Your task to perform on an android device: turn off smart reply in the gmail app Image 0: 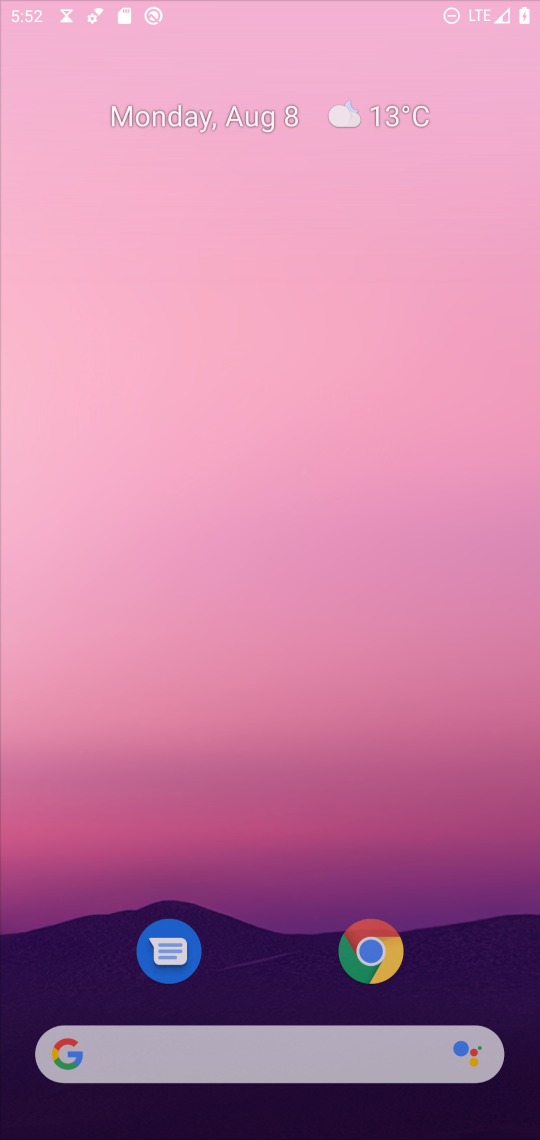
Step 0: press home button
Your task to perform on an android device: turn off smart reply in the gmail app Image 1: 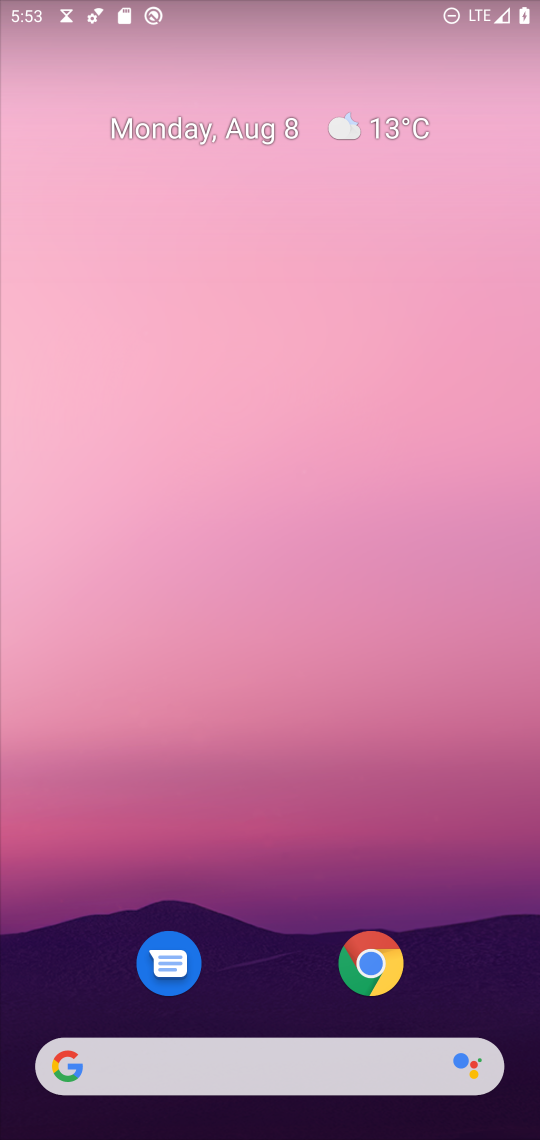
Step 1: drag from (252, 910) to (205, 213)
Your task to perform on an android device: turn off smart reply in the gmail app Image 2: 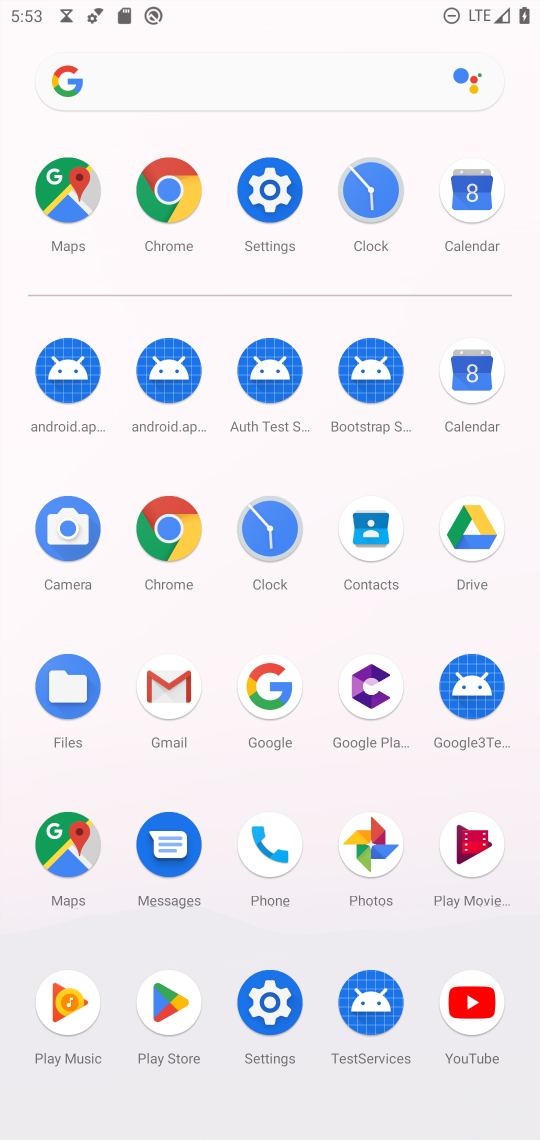
Step 2: click (174, 693)
Your task to perform on an android device: turn off smart reply in the gmail app Image 3: 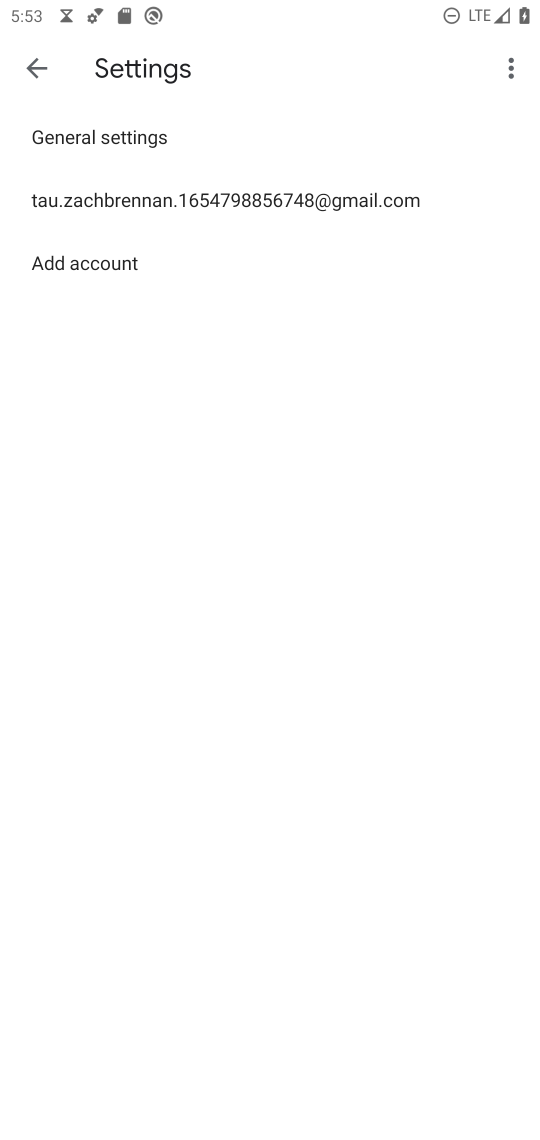
Step 3: click (126, 192)
Your task to perform on an android device: turn off smart reply in the gmail app Image 4: 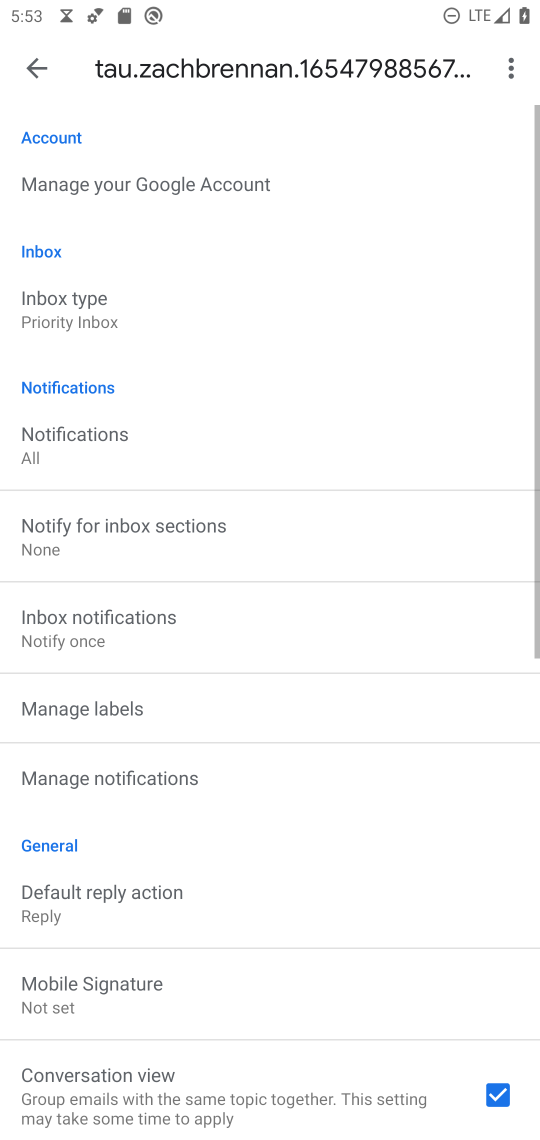
Step 4: drag from (313, 752) to (298, 260)
Your task to perform on an android device: turn off smart reply in the gmail app Image 5: 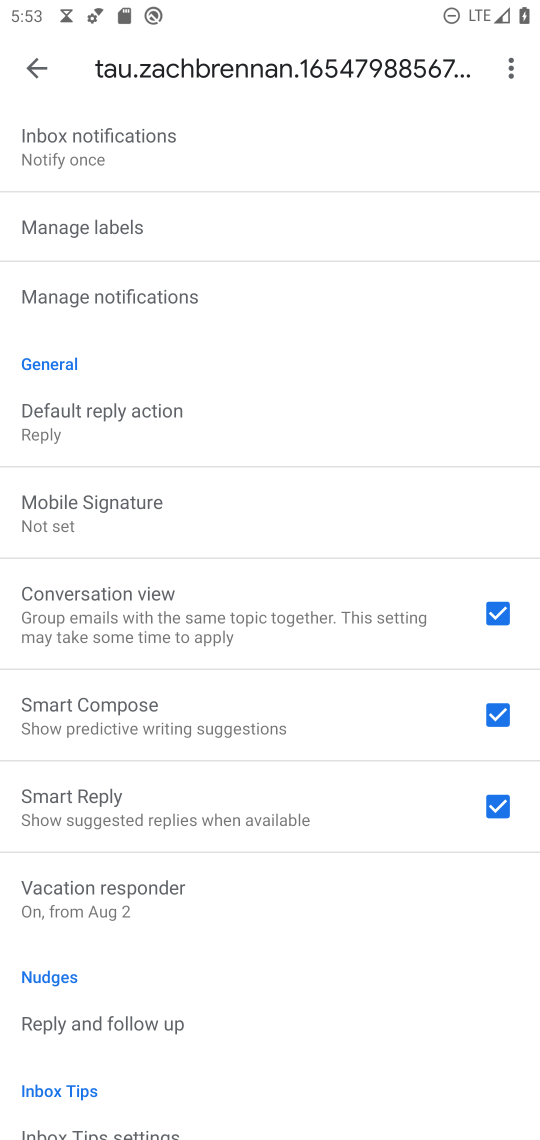
Step 5: click (484, 795)
Your task to perform on an android device: turn off smart reply in the gmail app Image 6: 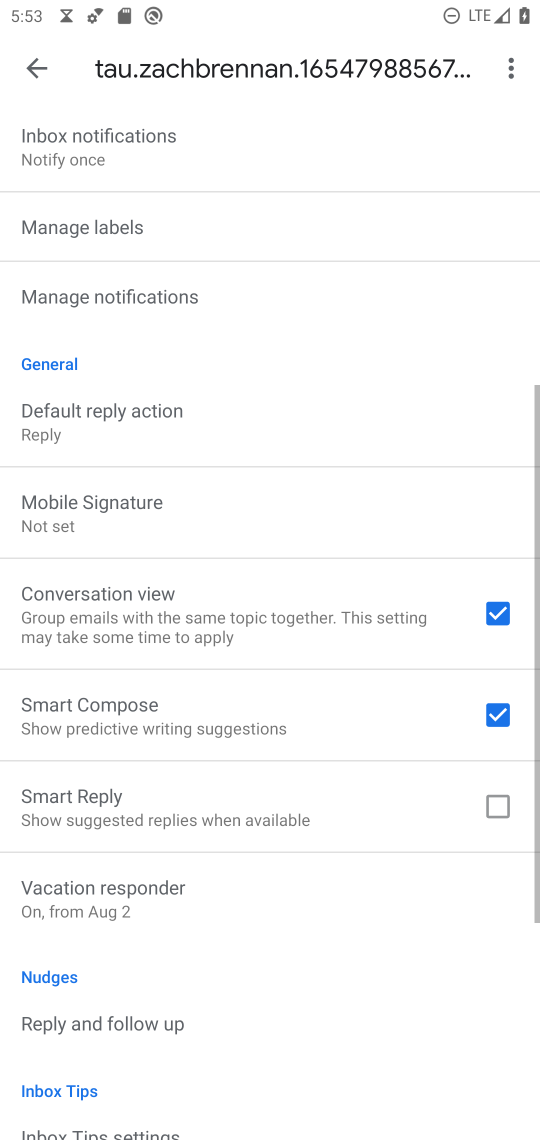
Step 6: task complete